Your task to perform on an android device: Open Google Maps Image 0: 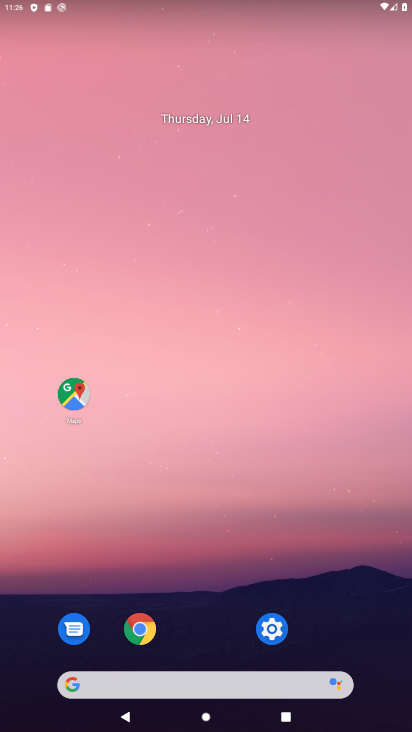
Step 0: press home button
Your task to perform on an android device: Open Google Maps Image 1: 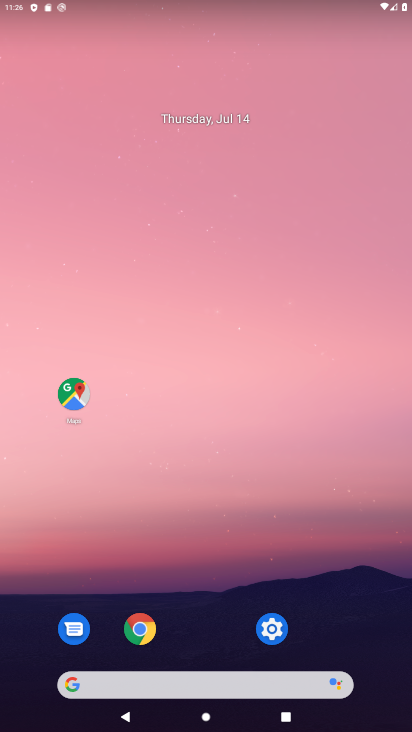
Step 1: click (67, 380)
Your task to perform on an android device: Open Google Maps Image 2: 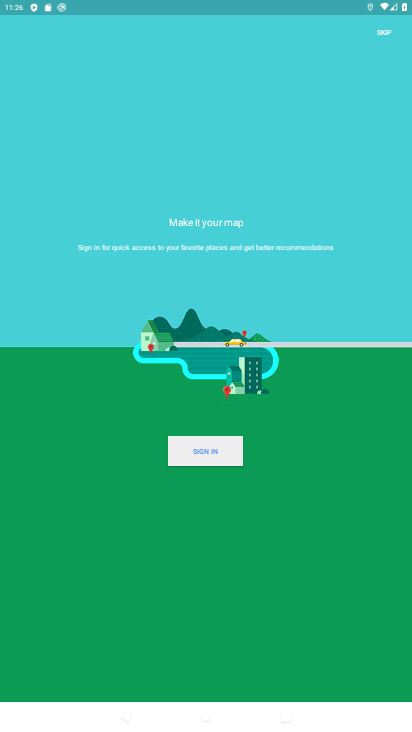
Step 2: click (379, 36)
Your task to perform on an android device: Open Google Maps Image 3: 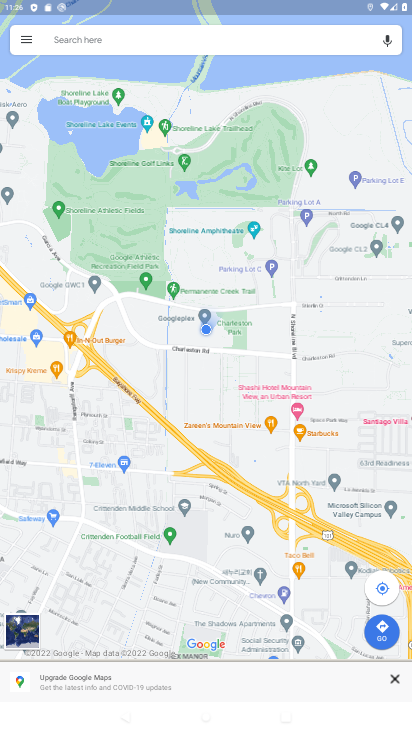
Step 3: task complete